Your task to perform on an android device: turn off translation in the chrome app Image 0: 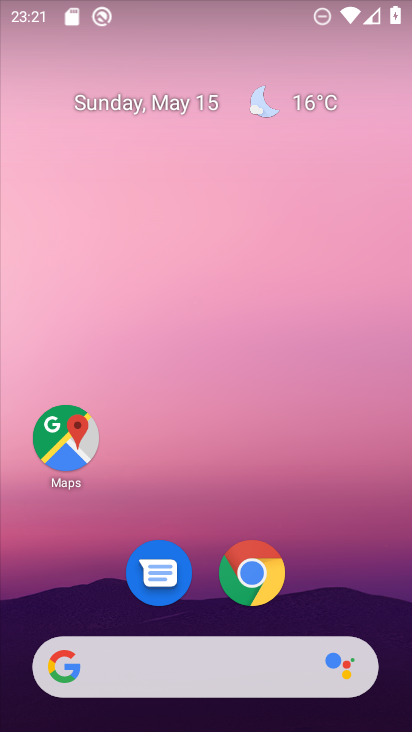
Step 0: press home button
Your task to perform on an android device: turn off translation in the chrome app Image 1: 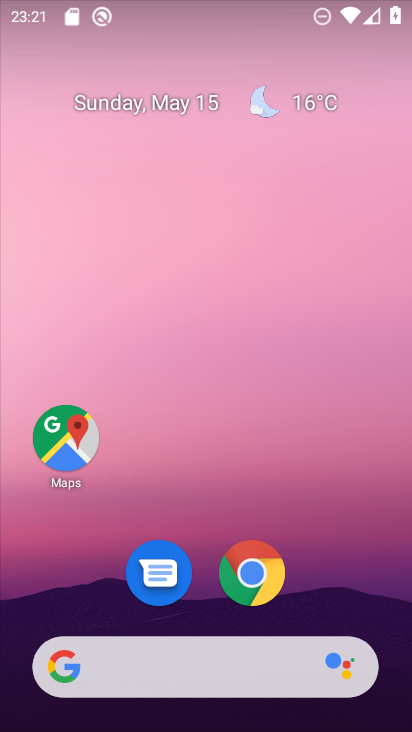
Step 1: drag from (357, 595) to (365, 0)
Your task to perform on an android device: turn off translation in the chrome app Image 2: 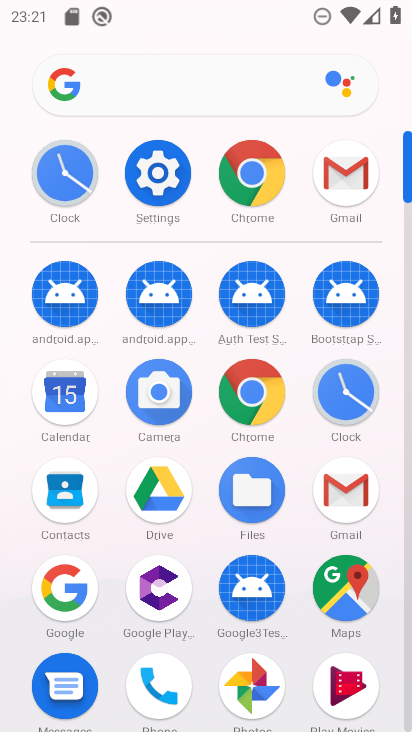
Step 2: click (252, 159)
Your task to perform on an android device: turn off translation in the chrome app Image 3: 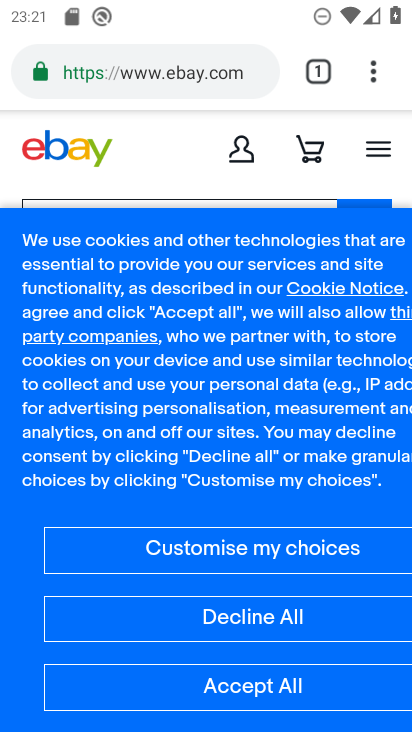
Step 3: click (373, 65)
Your task to perform on an android device: turn off translation in the chrome app Image 4: 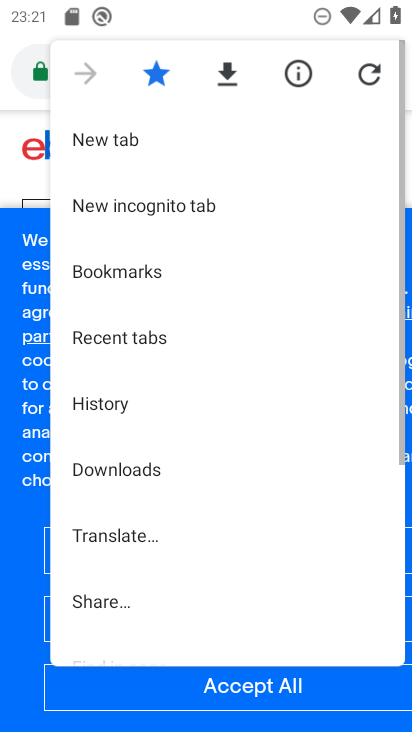
Step 4: drag from (184, 598) to (161, 204)
Your task to perform on an android device: turn off translation in the chrome app Image 5: 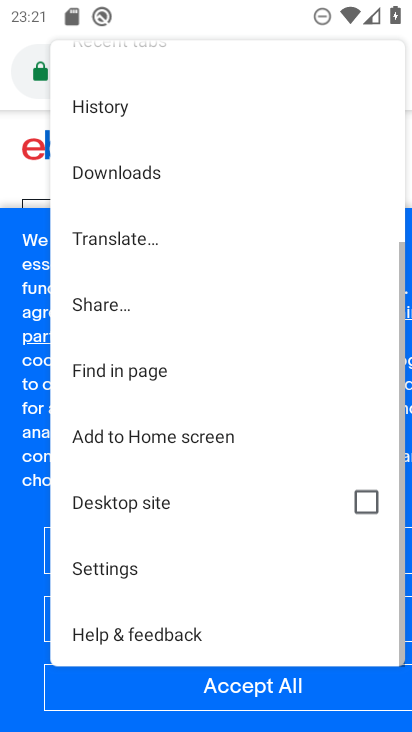
Step 5: click (144, 563)
Your task to perform on an android device: turn off translation in the chrome app Image 6: 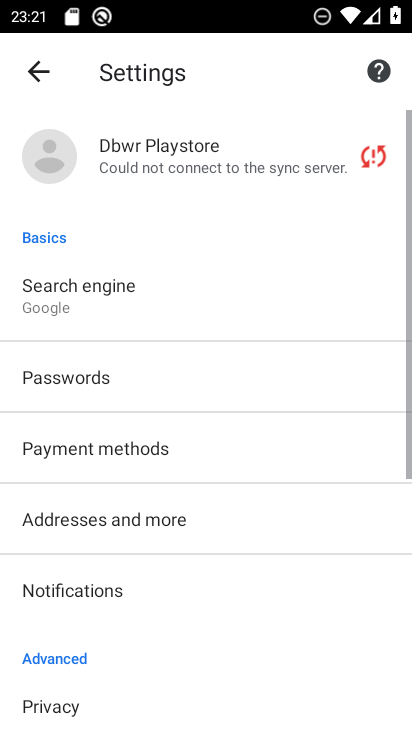
Step 6: drag from (223, 606) to (223, 244)
Your task to perform on an android device: turn off translation in the chrome app Image 7: 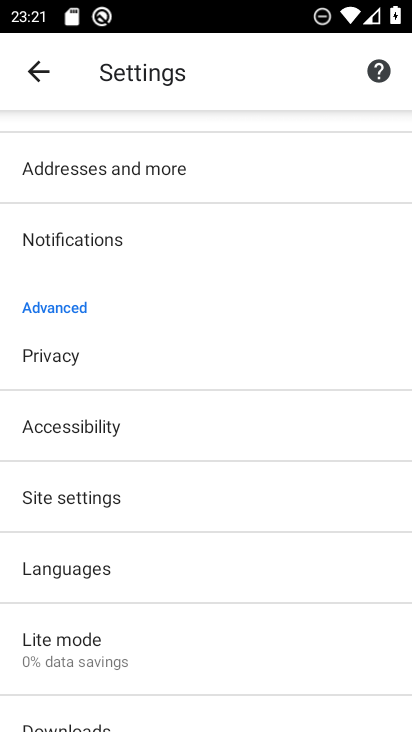
Step 7: drag from (128, 594) to (142, 505)
Your task to perform on an android device: turn off translation in the chrome app Image 8: 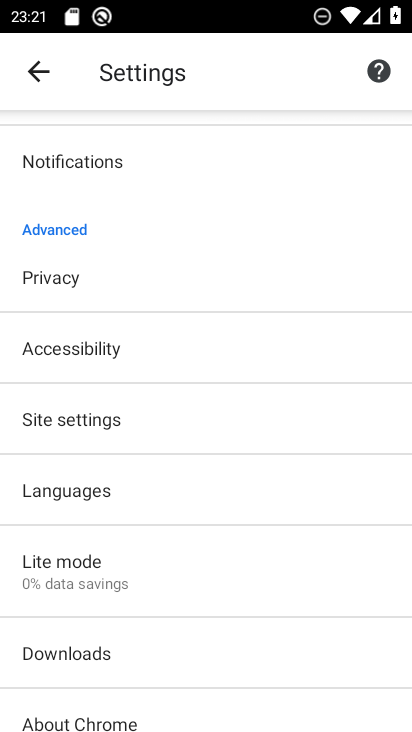
Step 8: click (74, 497)
Your task to perform on an android device: turn off translation in the chrome app Image 9: 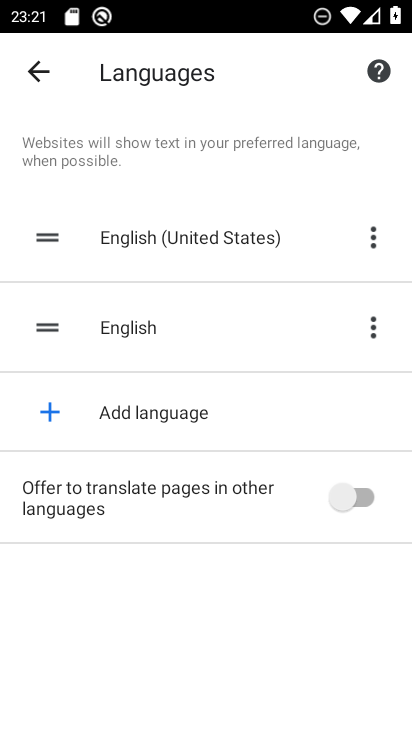
Step 9: task complete